Your task to perform on an android device: What is the recent news? Image 0: 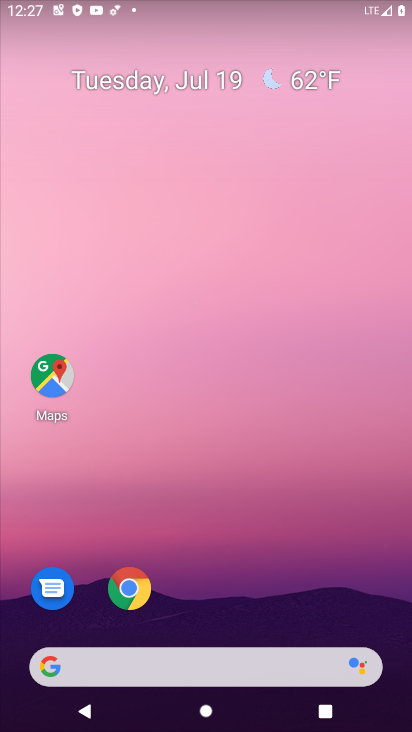
Step 0: click (231, 660)
Your task to perform on an android device: What is the recent news? Image 1: 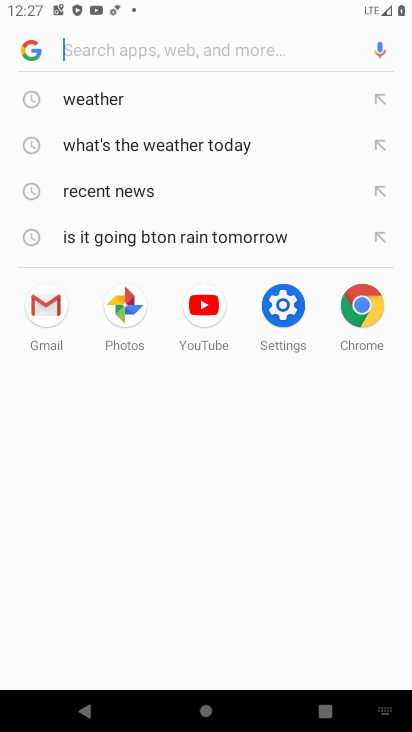
Step 1: type "what is the recent news"
Your task to perform on an android device: What is the recent news? Image 2: 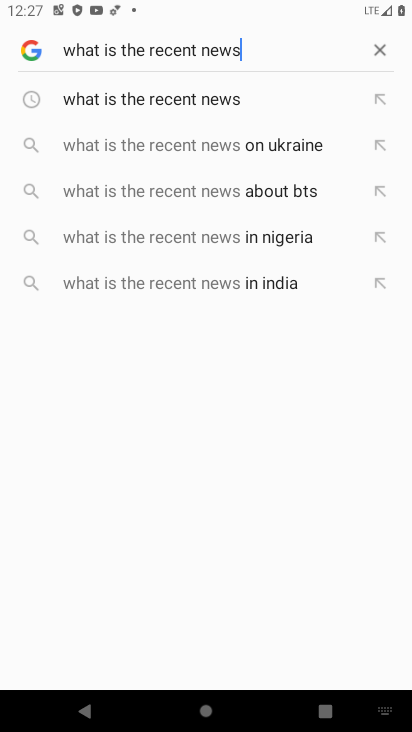
Step 2: click (210, 100)
Your task to perform on an android device: What is the recent news? Image 3: 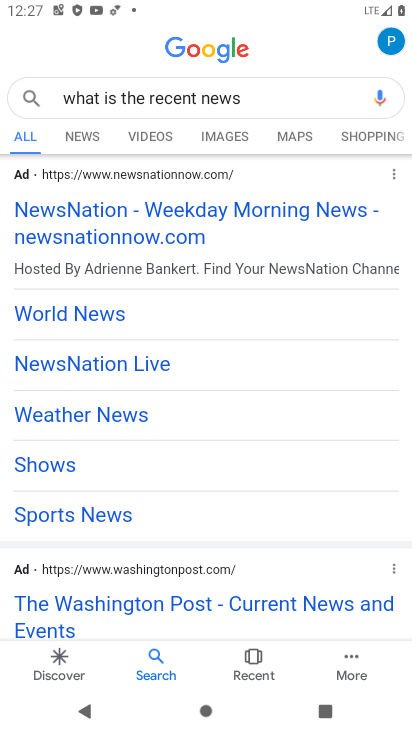
Step 3: click (89, 134)
Your task to perform on an android device: What is the recent news? Image 4: 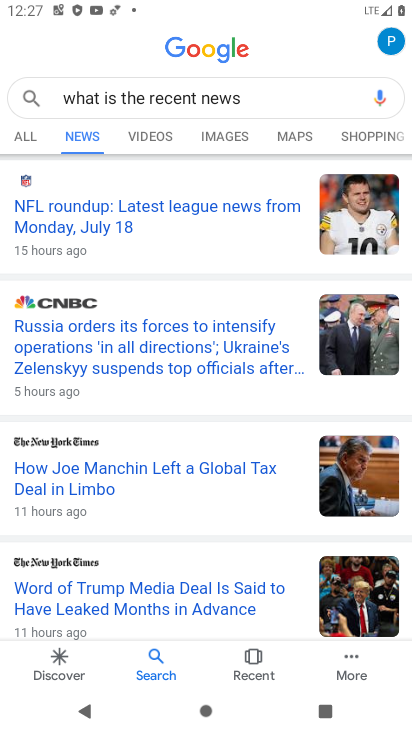
Step 4: task complete